Your task to perform on an android device: What's on my calendar tomorrow? Image 0: 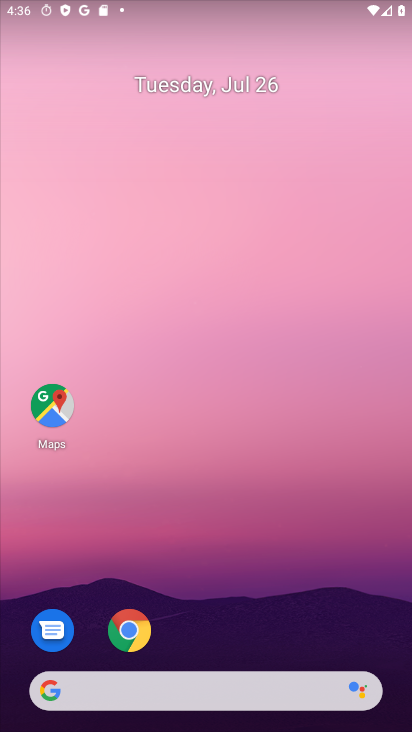
Step 0: drag from (322, 487) to (306, 32)
Your task to perform on an android device: What's on my calendar tomorrow? Image 1: 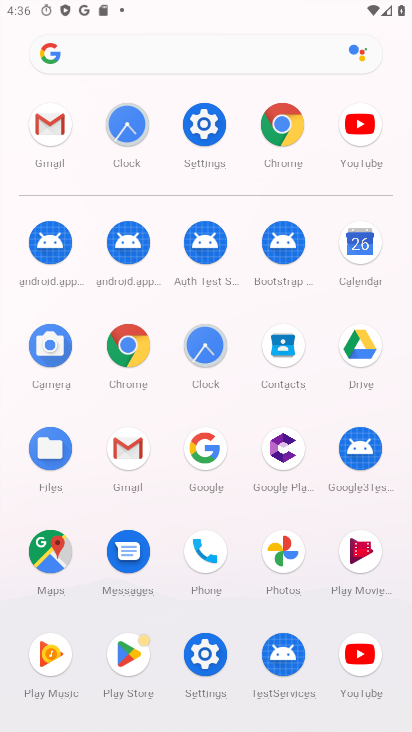
Step 1: click (368, 247)
Your task to perform on an android device: What's on my calendar tomorrow? Image 2: 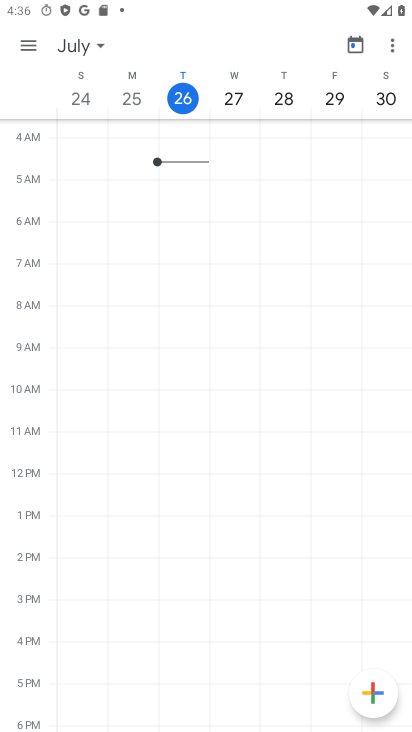
Step 2: click (240, 91)
Your task to perform on an android device: What's on my calendar tomorrow? Image 3: 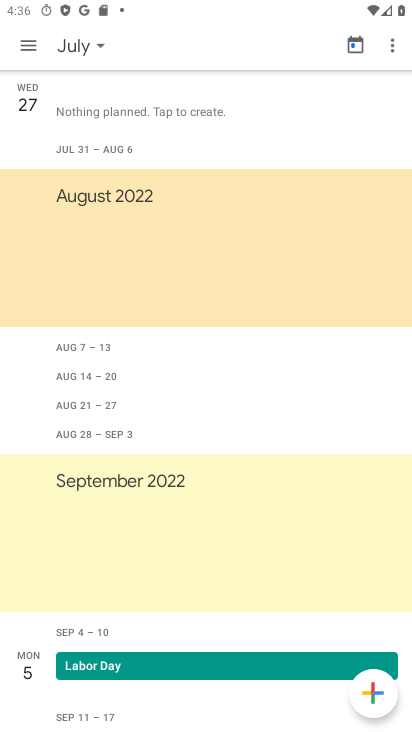
Step 3: task complete